Your task to perform on an android device: move a message to another label in the gmail app Image 0: 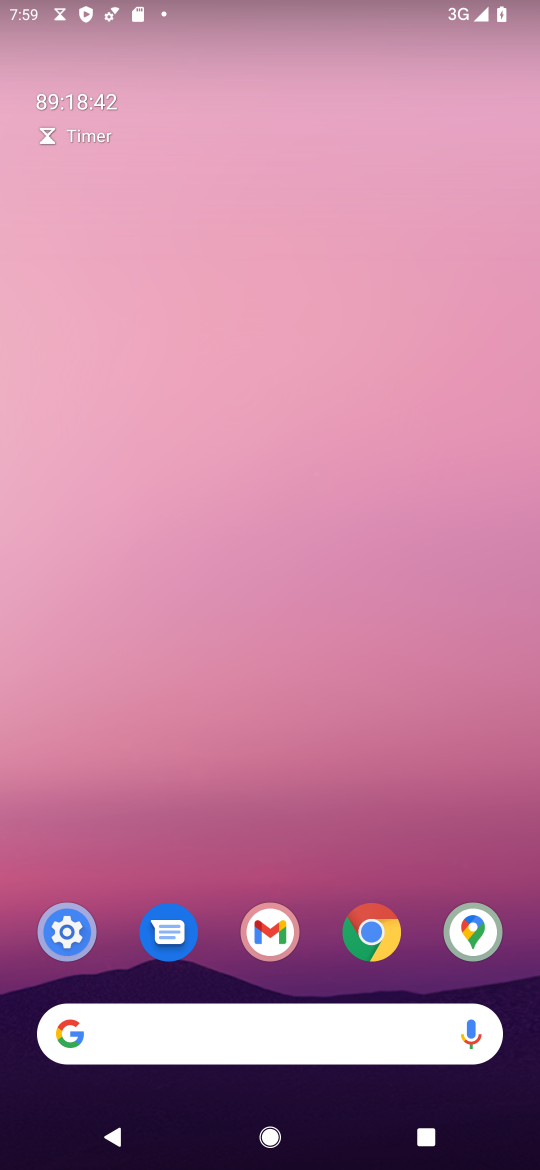
Step 0: click (279, 935)
Your task to perform on an android device: move a message to another label in the gmail app Image 1: 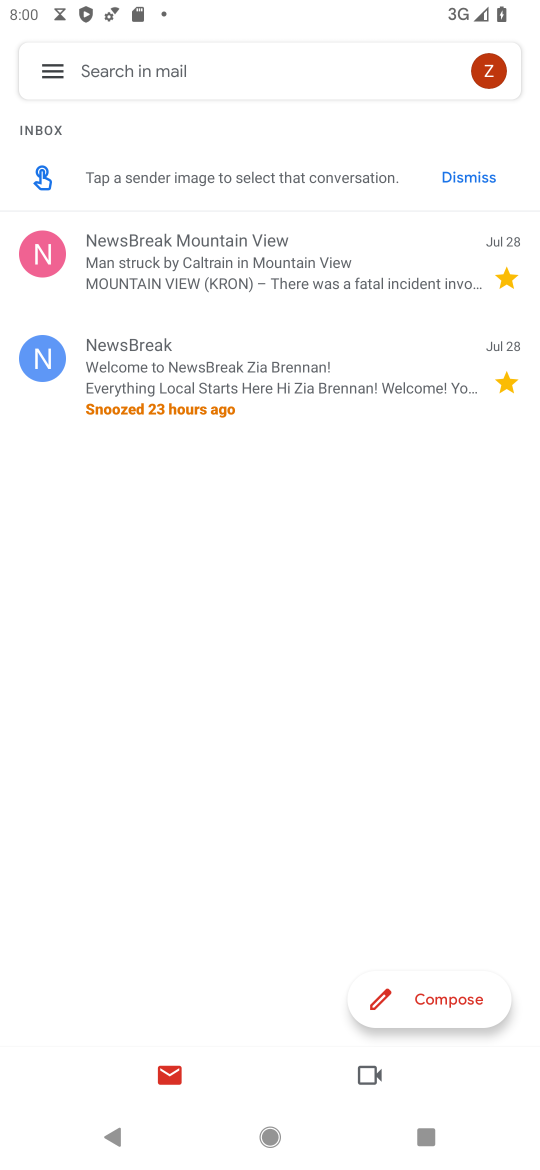
Step 1: click (232, 287)
Your task to perform on an android device: move a message to another label in the gmail app Image 2: 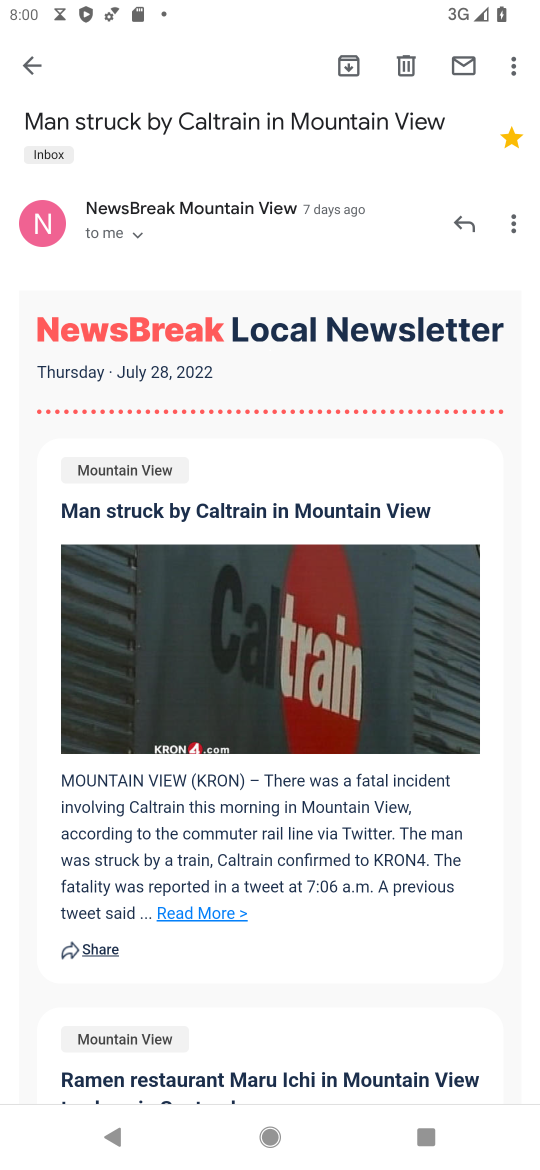
Step 2: click (47, 145)
Your task to perform on an android device: move a message to another label in the gmail app Image 3: 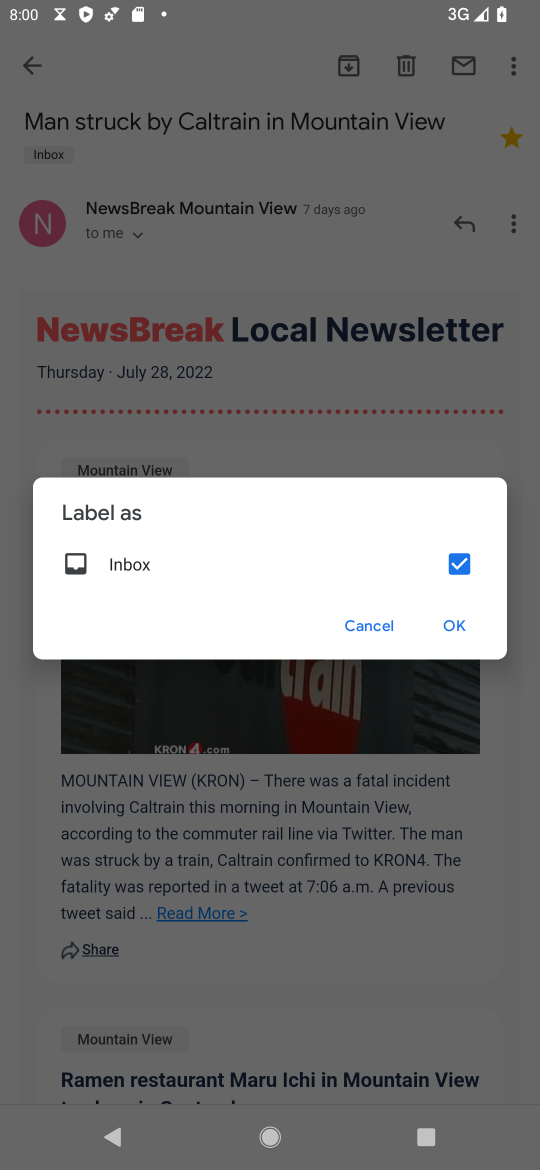
Step 3: click (468, 564)
Your task to perform on an android device: move a message to another label in the gmail app Image 4: 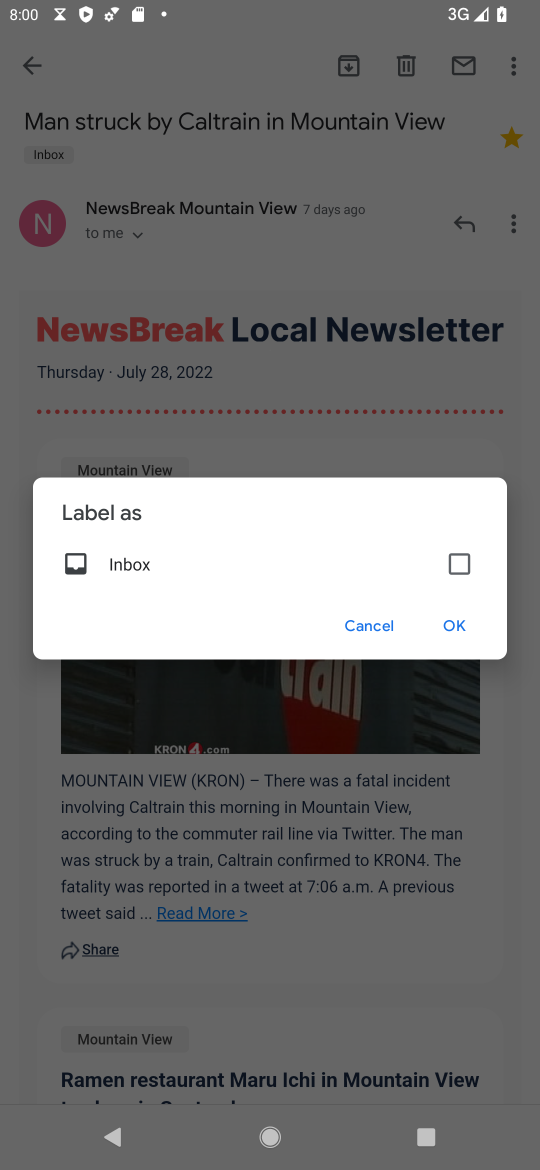
Step 4: click (450, 614)
Your task to perform on an android device: move a message to another label in the gmail app Image 5: 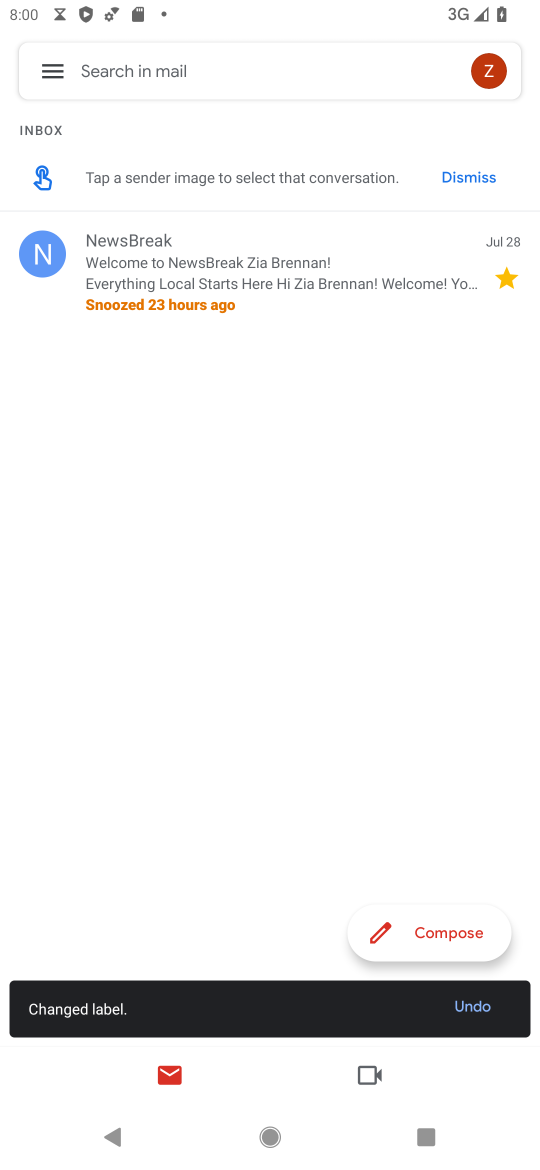
Step 5: task complete